Your task to perform on an android device: Go to display settings Image 0: 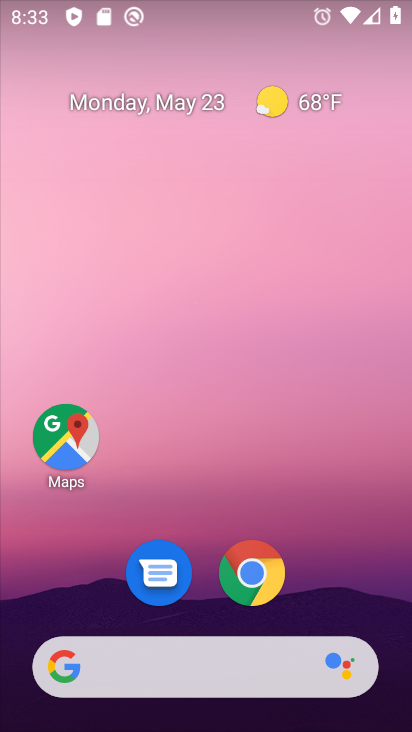
Step 0: press home button
Your task to perform on an android device: Go to display settings Image 1: 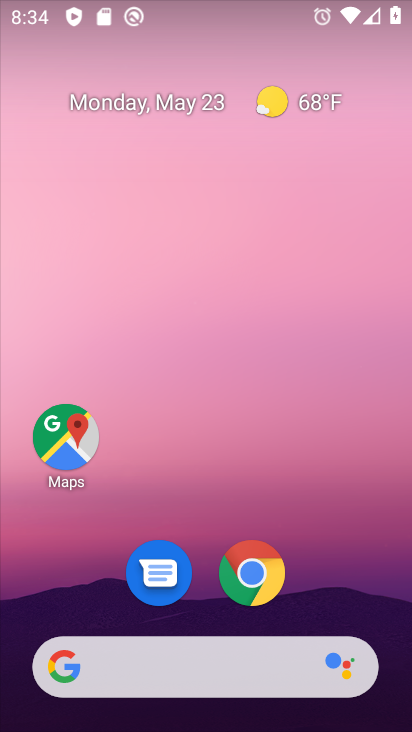
Step 1: drag from (212, 613) to (239, 161)
Your task to perform on an android device: Go to display settings Image 2: 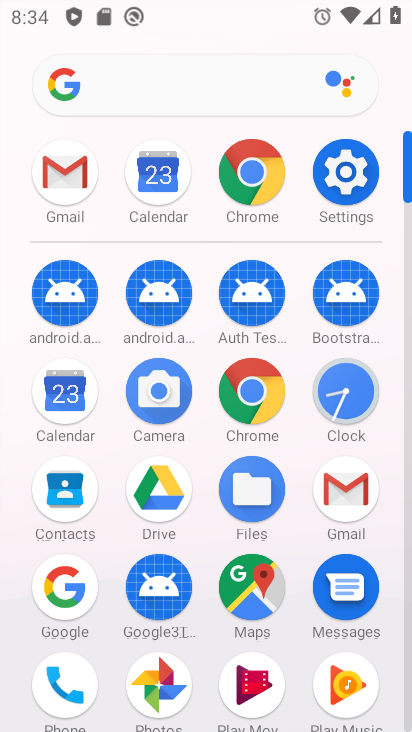
Step 2: click (339, 166)
Your task to perform on an android device: Go to display settings Image 3: 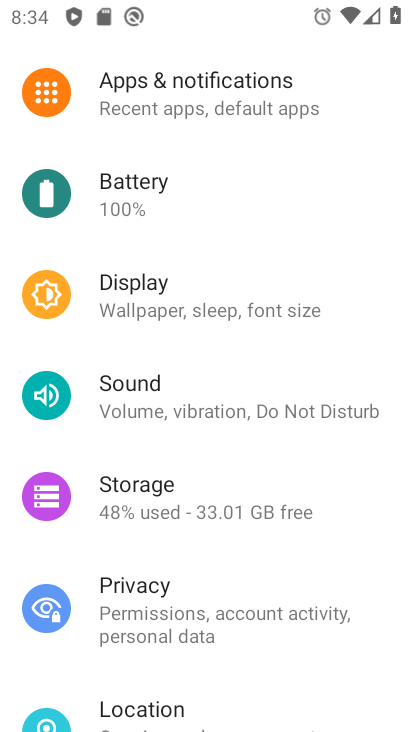
Step 3: click (187, 292)
Your task to perform on an android device: Go to display settings Image 4: 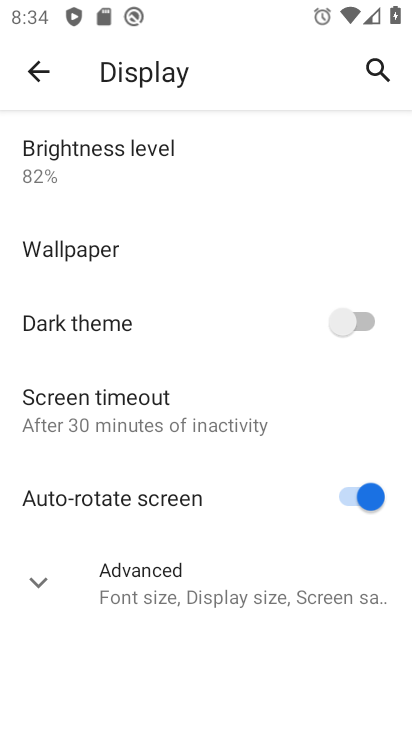
Step 4: click (36, 571)
Your task to perform on an android device: Go to display settings Image 5: 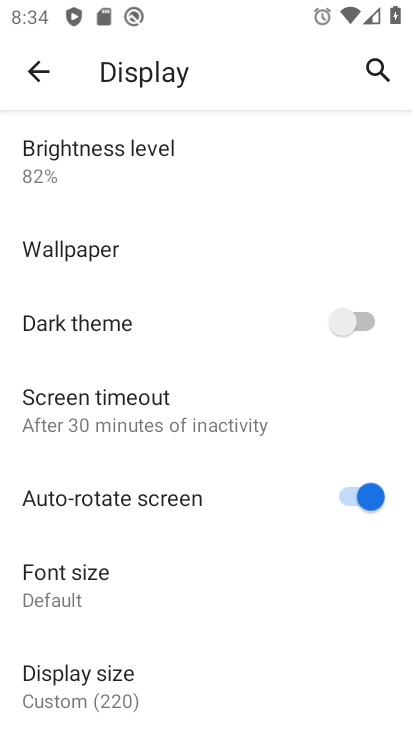
Step 5: task complete